Your task to perform on an android device: Open settings Image 0: 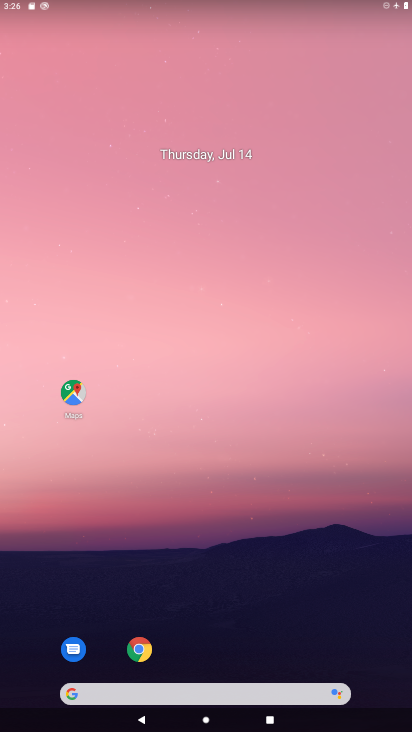
Step 0: drag from (277, 635) to (258, 377)
Your task to perform on an android device: Open settings Image 1: 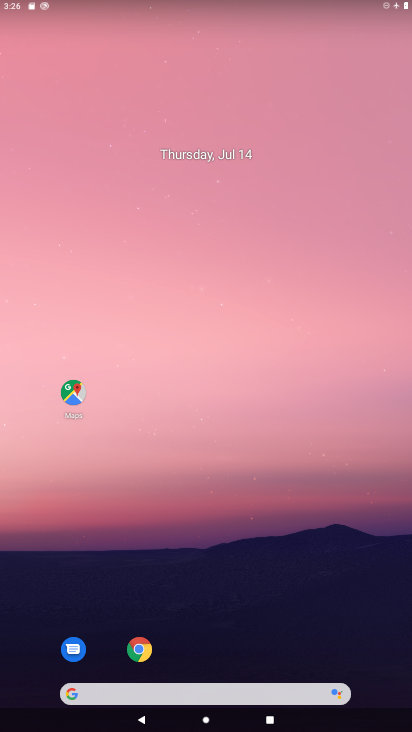
Step 1: drag from (286, 613) to (281, 99)
Your task to perform on an android device: Open settings Image 2: 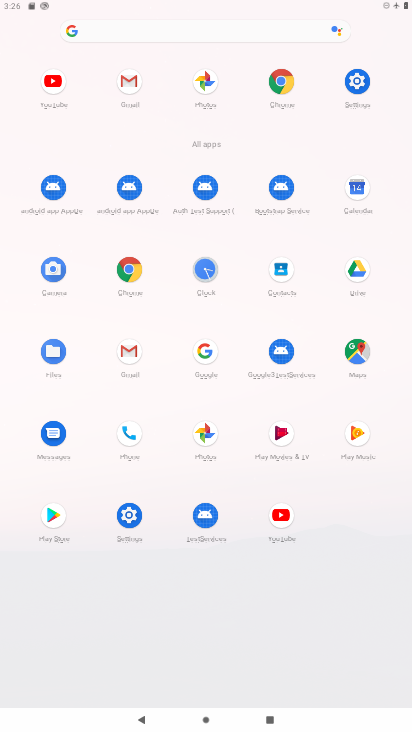
Step 2: click (363, 78)
Your task to perform on an android device: Open settings Image 3: 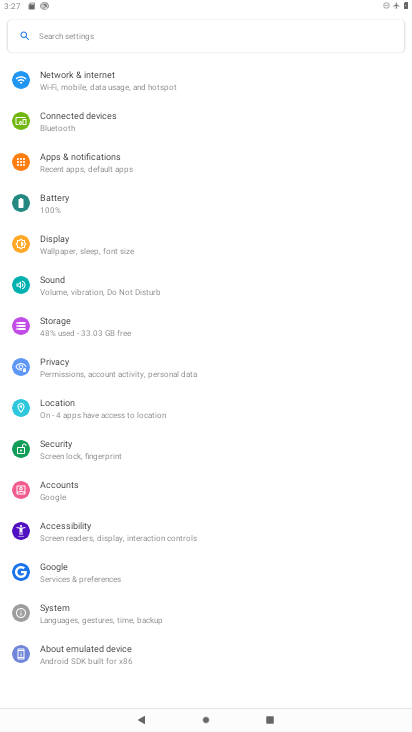
Step 3: task complete